Your task to perform on an android device: View the shopping cart on walmart. Search for "lenovo thinkpad" on walmart, select the first entry, add it to the cart, then select checkout. Image 0: 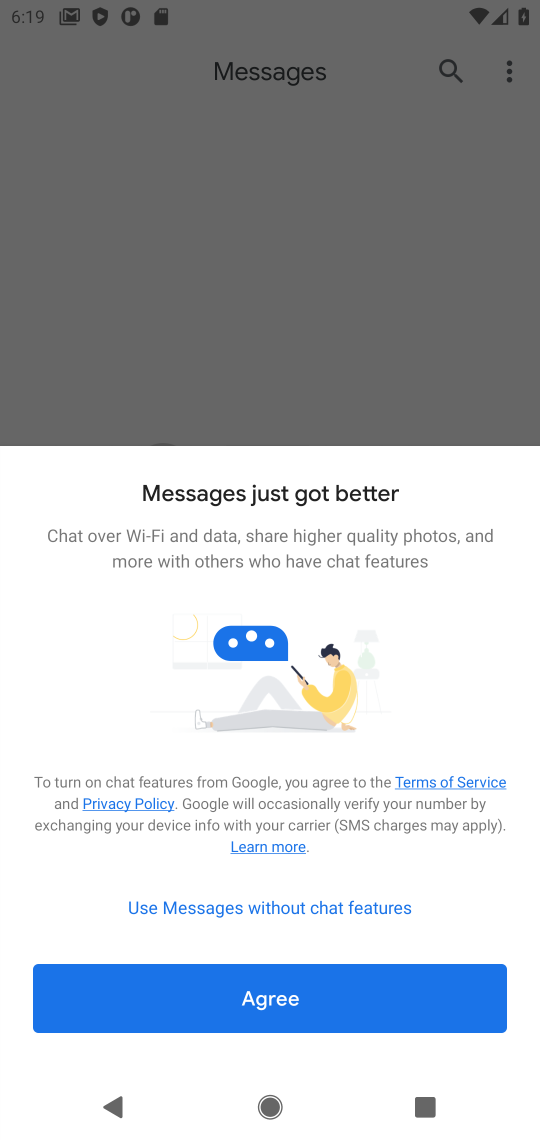
Step 0: press home button
Your task to perform on an android device: View the shopping cart on walmart. Search for "lenovo thinkpad" on walmart, select the first entry, add it to the cart, then select checkout. Image 1: 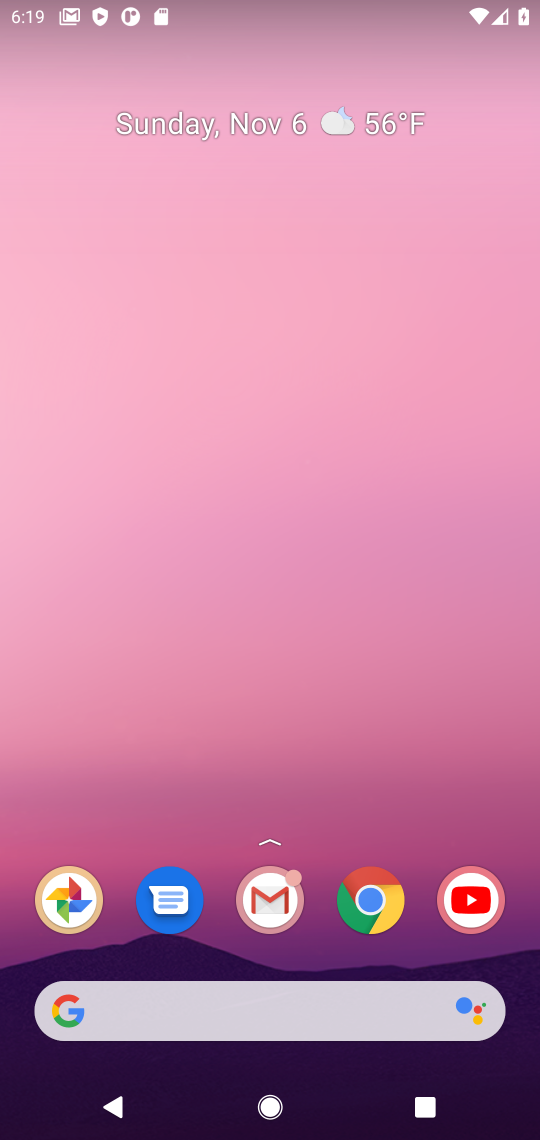
Step 1: drag from (318, 953) to (416, 206)
Your task to perform on an android device: View the shopping cart on walmart. Search for "lenovo thinkpad" on walmart, select the first entry, add it to the cart, then select checkout. Image 2: 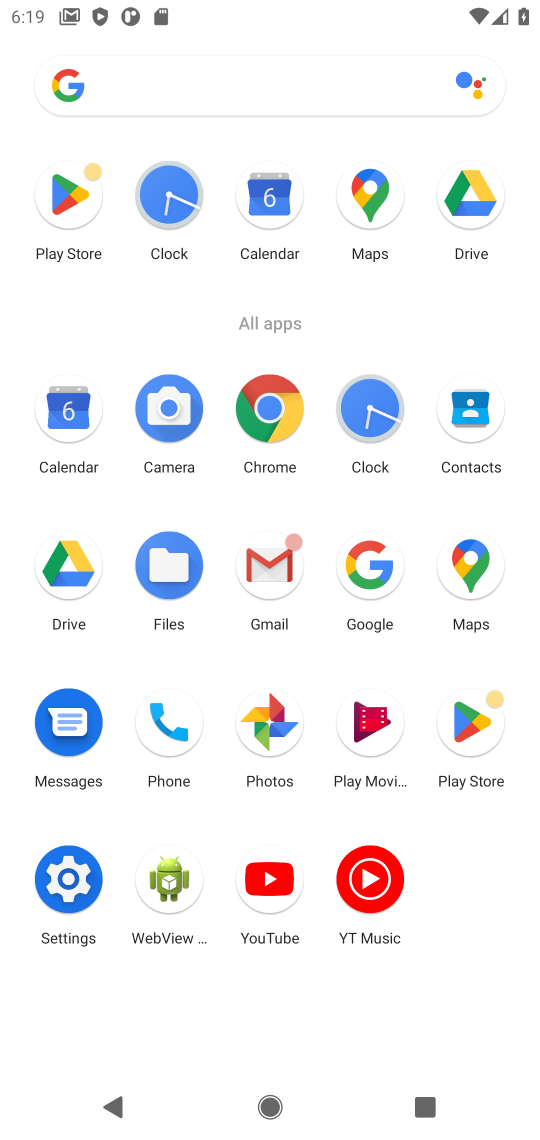
Step 2: click (263, 414)
Your task to perform on an android device: View the shopping cart on walmart. Search for "lenovo thinkpad" on walmart, select the first entry, add it to the cart, then select checkout. Image 3: 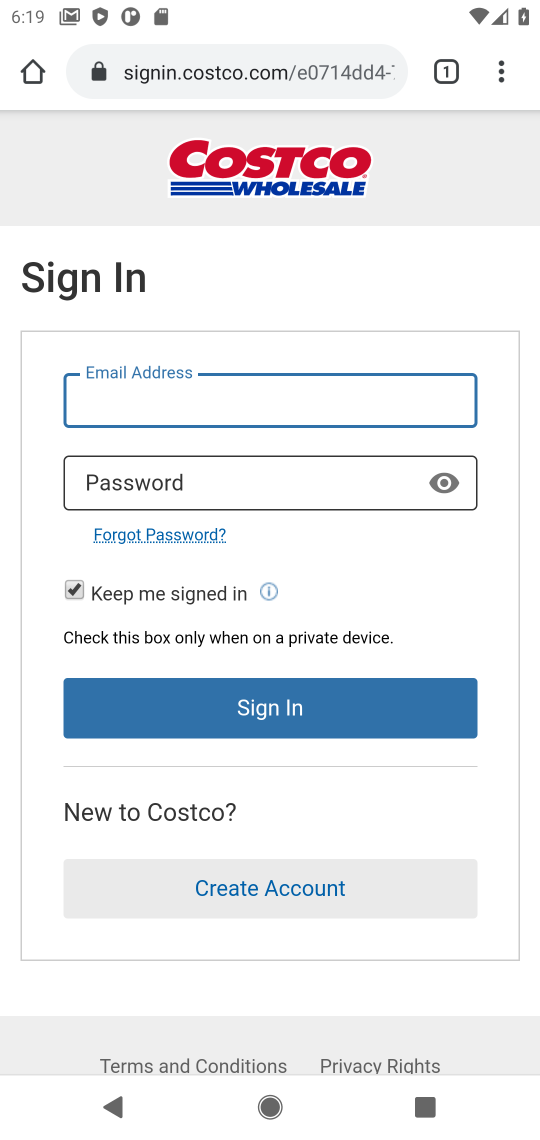
Step 3: click (286, 68)
Your task to perform on an android device: View the shopping cart on walmart. Search for "lenovo thinkpad" on walmart, select the first entry, add it to the cart, then select checkout. Image 4: 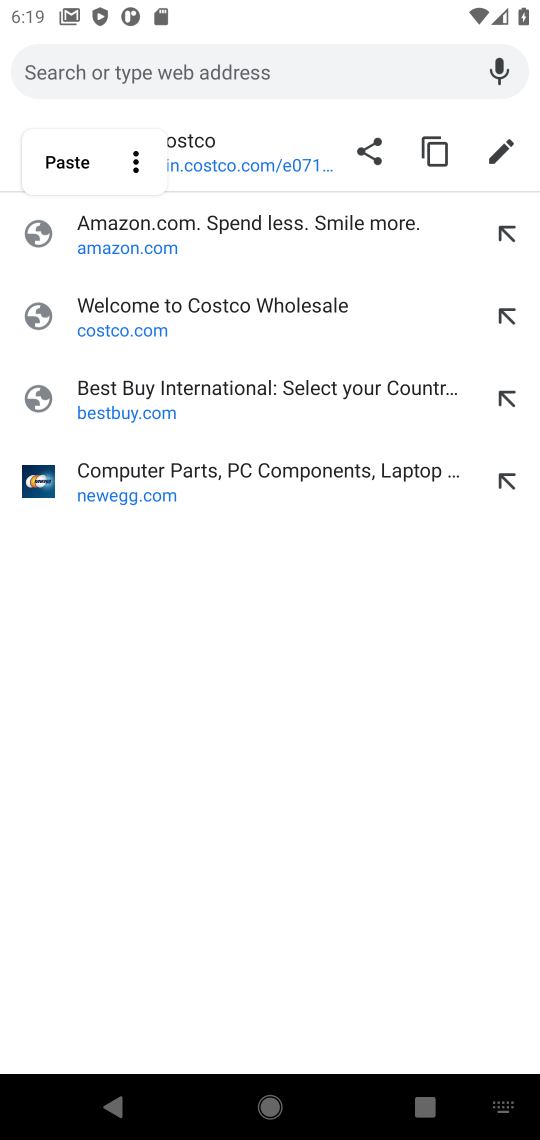
Step 4: type "walmart.com"
Your task to perform on an android device: View the shopping cart on walmart. Search for "lenovo thinkpad" on walmart, select the first entry, add it to the cart, then select checkout. Image 5: 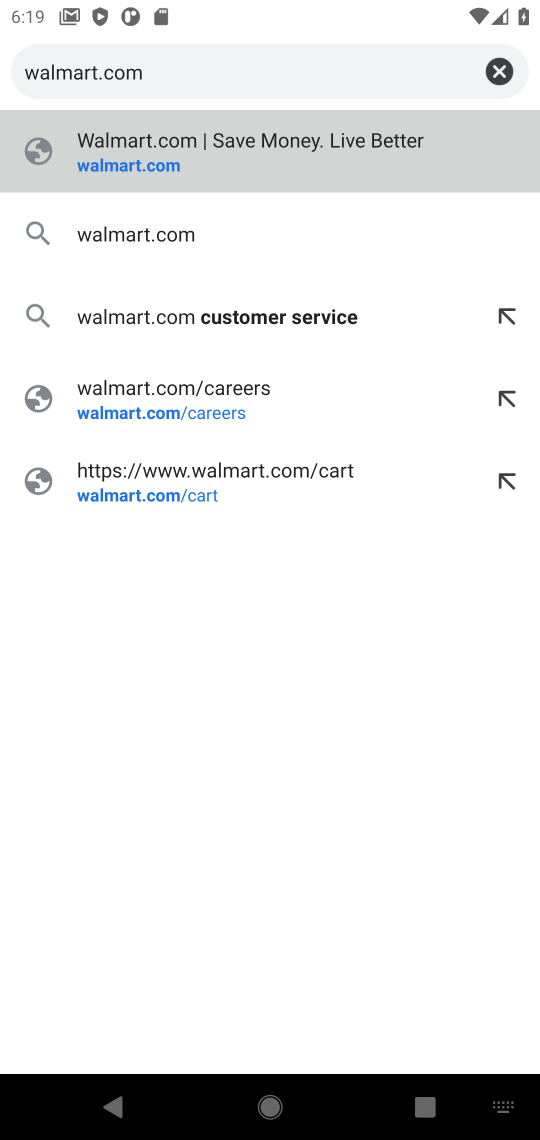
Step 5: press enter
Your task to perform on an android device: View the shopping cart on walmart. Search for "lenovo thinkpad" on walmart, select the first entry, add it to the cart, then select checkout. Image 6: 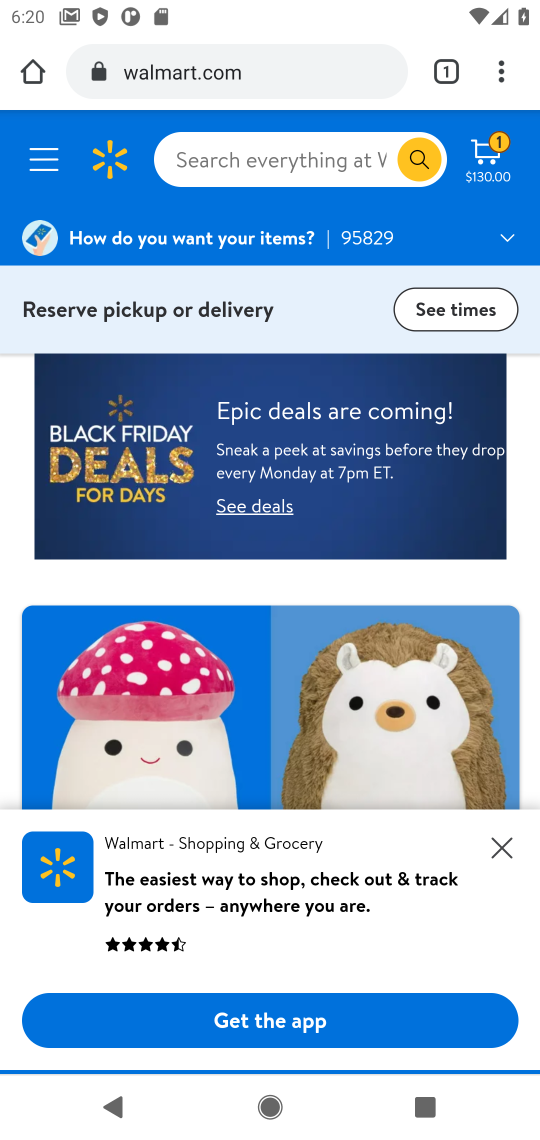
Step 6: click (232, 146)
Your task to perform on an android device: View the shopping cart on walmart. Search for "lenovo thinkpad" on walmart, select the first entry, add it to the cart, then select checkout. Image 7: 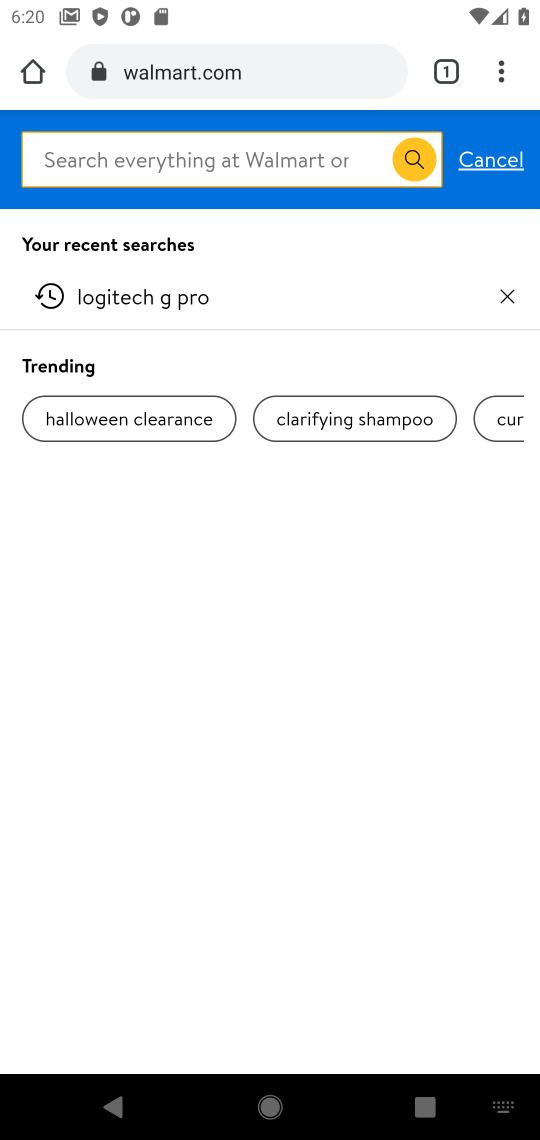
Step 7: type "lenovo  thinkpad"
Your task to perform on an android device: View the shopping cart on walmart. Search for "lenovo thinkpad" on walmart, select the first entry, add it to the cart, then select checkout. Image 8: 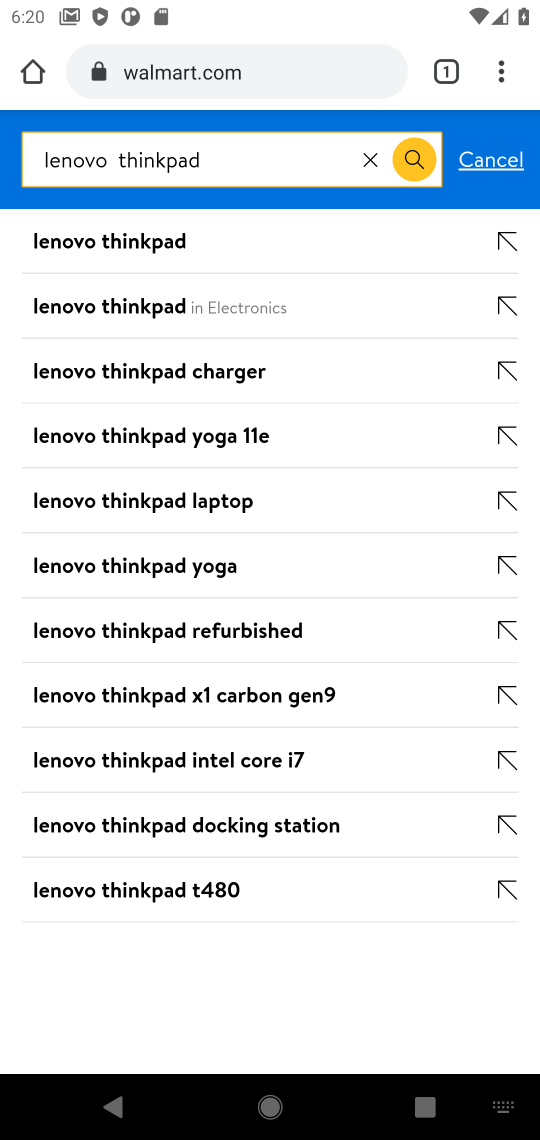
Step 8: press enter
Your task to perform on an android device: View the shopping cart on walmart. Search for "lenovo thinkpad" on walmart, select the first entry, add it to the cart, then select checkout. Image 9: 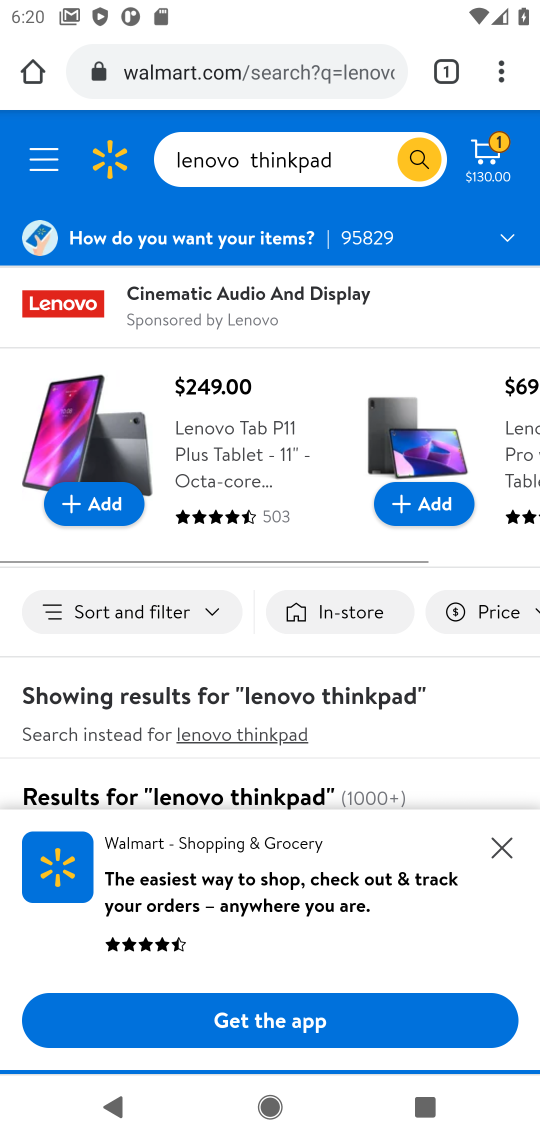
Step 9: drag from (402, 552) to (394, 121)
Your task to perform on an android device: View the shopping cart on walmart. Search for "lenovo thinkpad" on walmart, select the first entry, add it to the cart, then select checkout. Image 10: 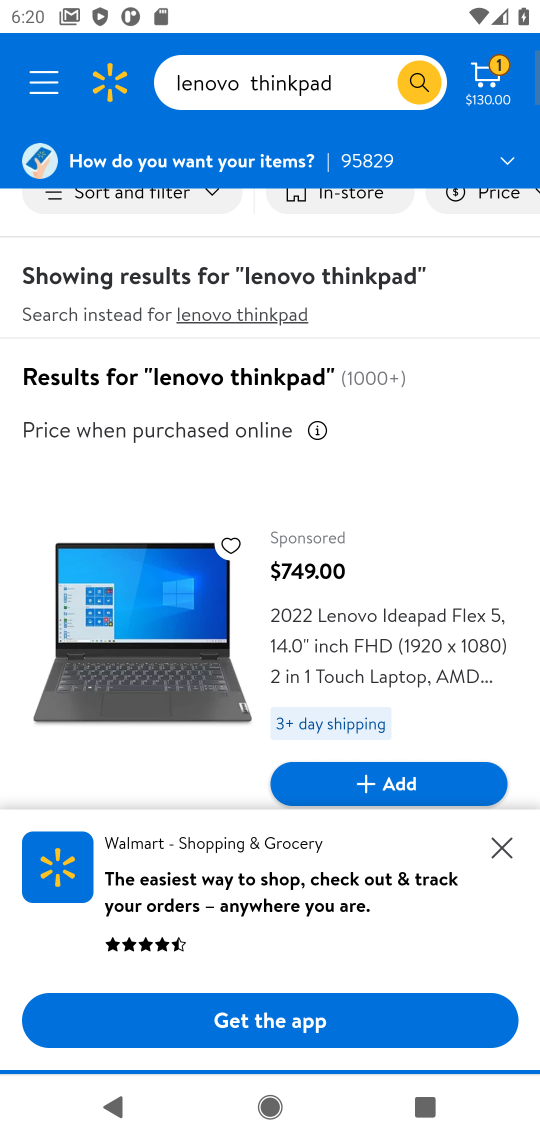
Step 10: drag from (272, 670) to (374, 271)
Your task to perform on an android device: View the shopping cart on walmart. Search for "lenovo thinkpad" on walmart, select the first entry, add it to the cart, then select checkout. Image 11: 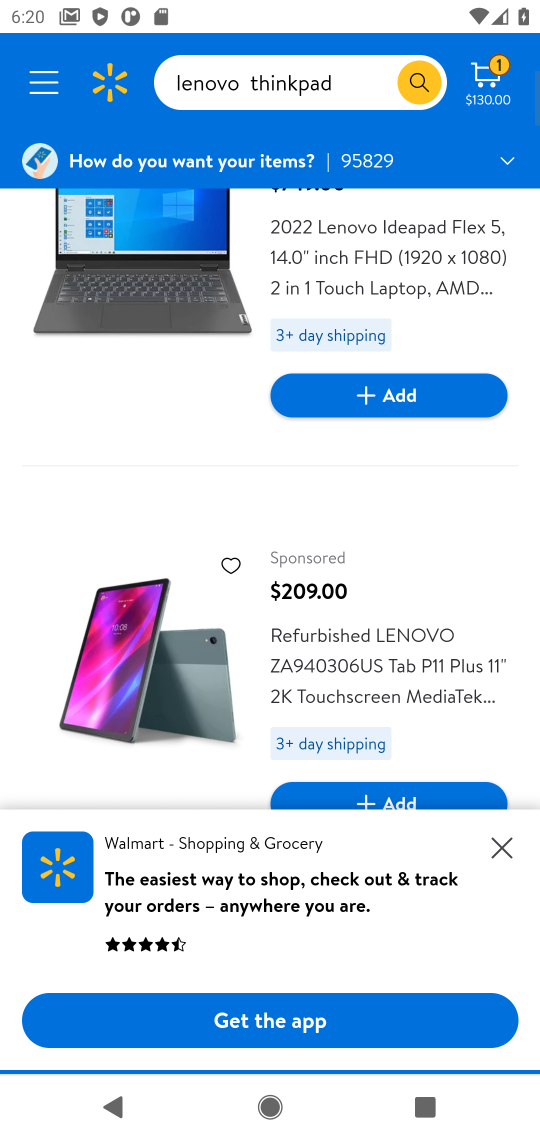
Step 11: drag from (203, 734) to (247, 196)
Your task to perform on an android device: View the shopping cart on walmart. Search for "lenovo thinkpad" on walmart, select the first entry, add it to the cart, then select checkout. Image 12: 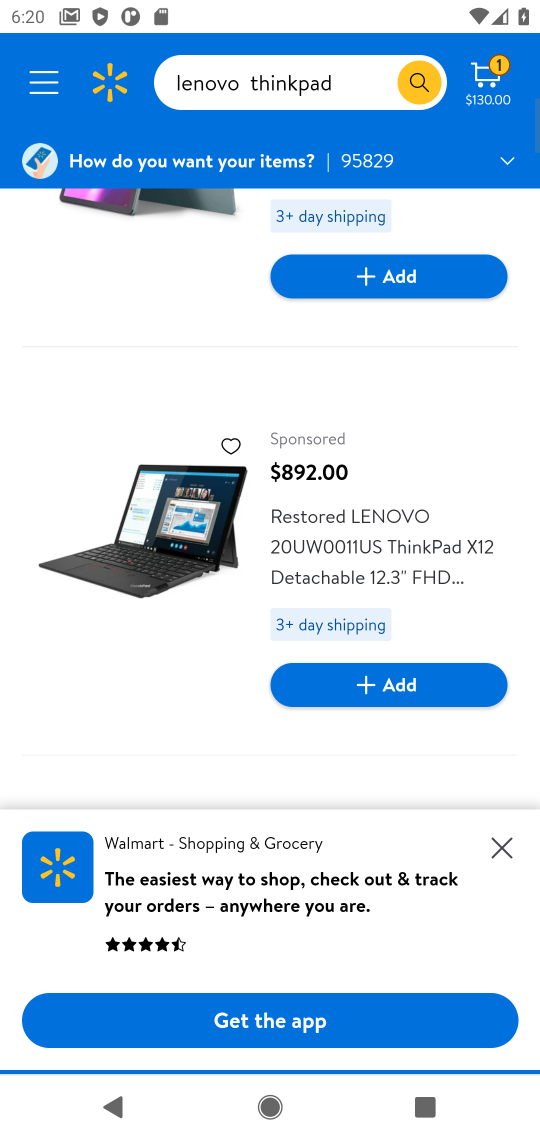
Step 12: drag from (112, 669) to (119, 228)
Your task to perform on an android device: View the shopping cart on walmart. Search for "lenovo thinkpad" on walmart, select the first entry, add it to the cart, then select checkout. Image 13: 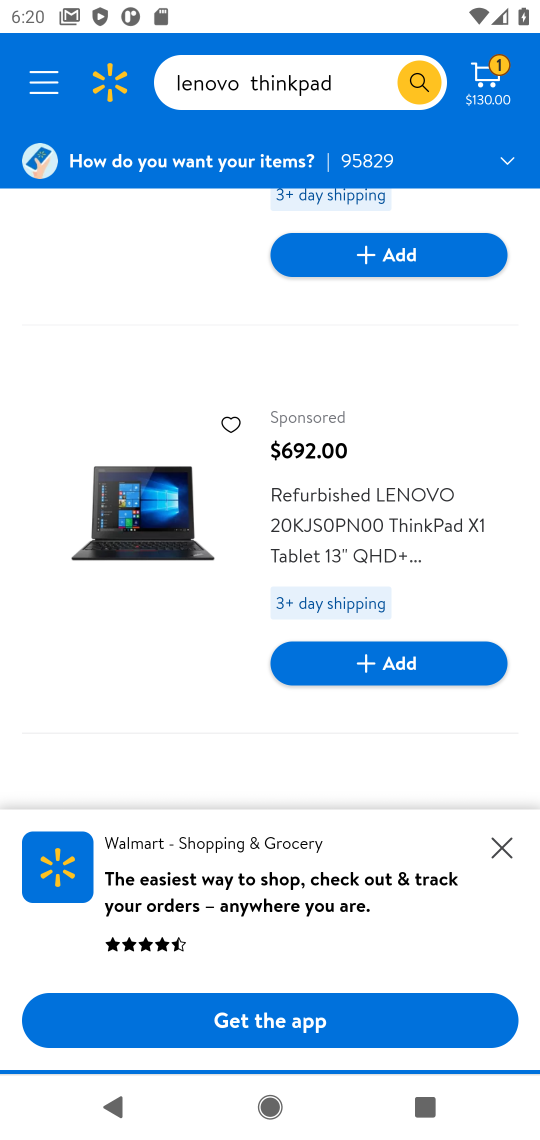
Step 13: drag from (301, 704) to (379, 386)
Your task to perform on an android device: View the shopping cart on walmart. Search for "lenovo thinkpad" on walmart, select the first entry, add it to the cart, then select checkout. Image 14: 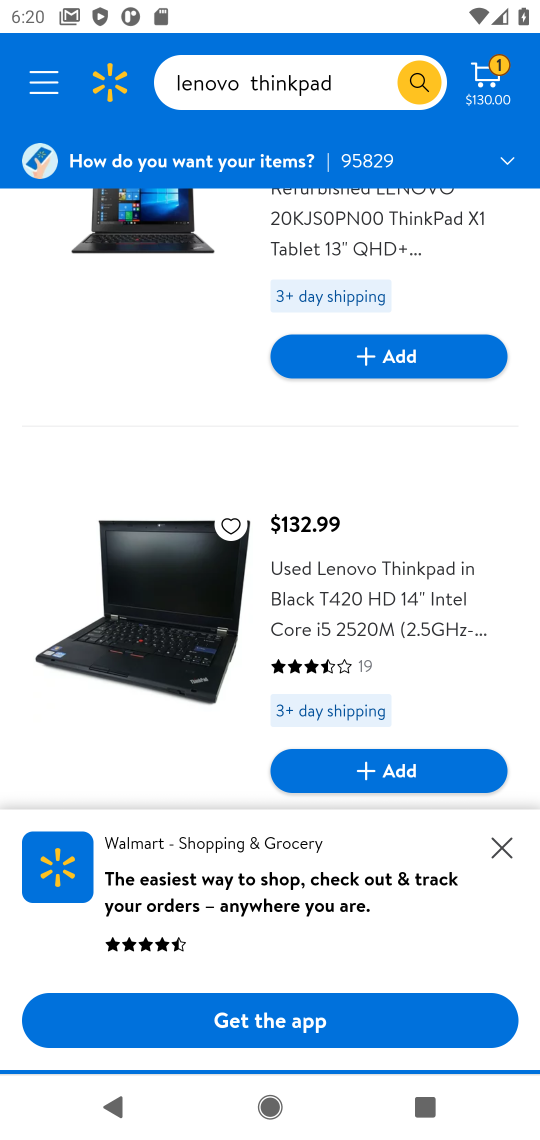
Step 14: drag from (355, 493) to (310, 330)
Your task to perform on an android device: View the shopping cart on walmart. Search for "lenovo thinkpad" on walmart, select the first entry, add it to the cart, then select checkout. Image 15: 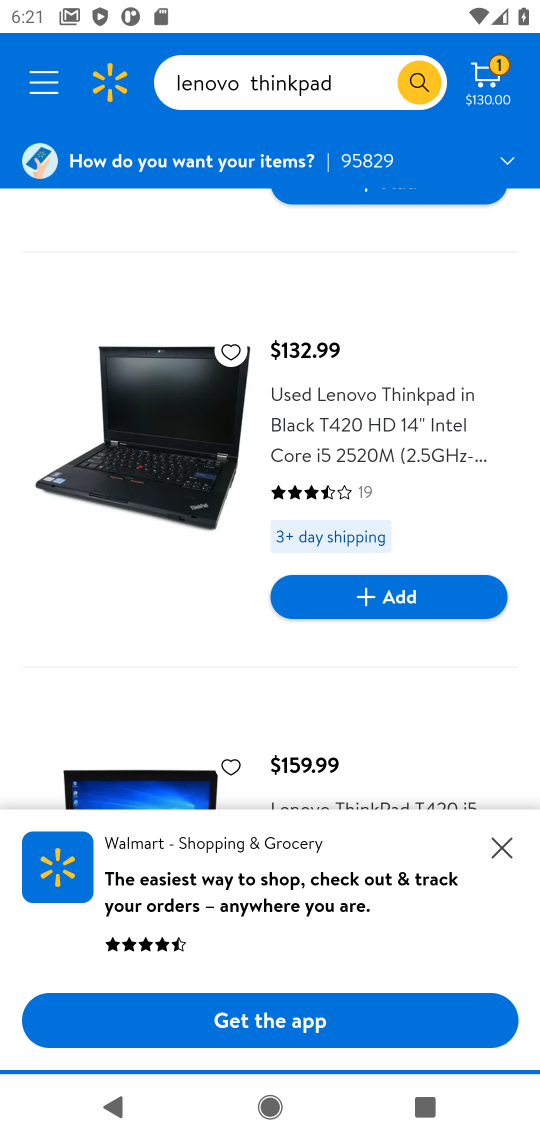
Step 15: click (388, 413)
Your task to perform on an android device: View the shopping cart on walmart. Search for "lenovo thinkpad" on walmart, select the first entry, add it to the cart, then select checkout. Image 16: 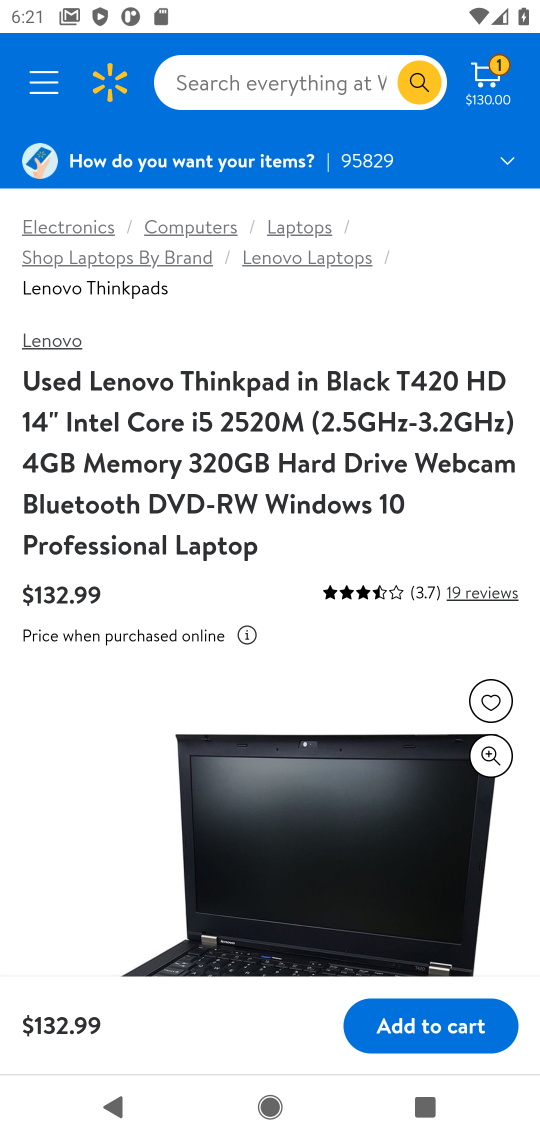
Step 16: click (426, 1030)
Your task to perform on an android device: View the shopping cart on walmart. Search for "lenovo thinkpad" on walmart, select the first entry, add it to the cart, then select checkout. Image 17: 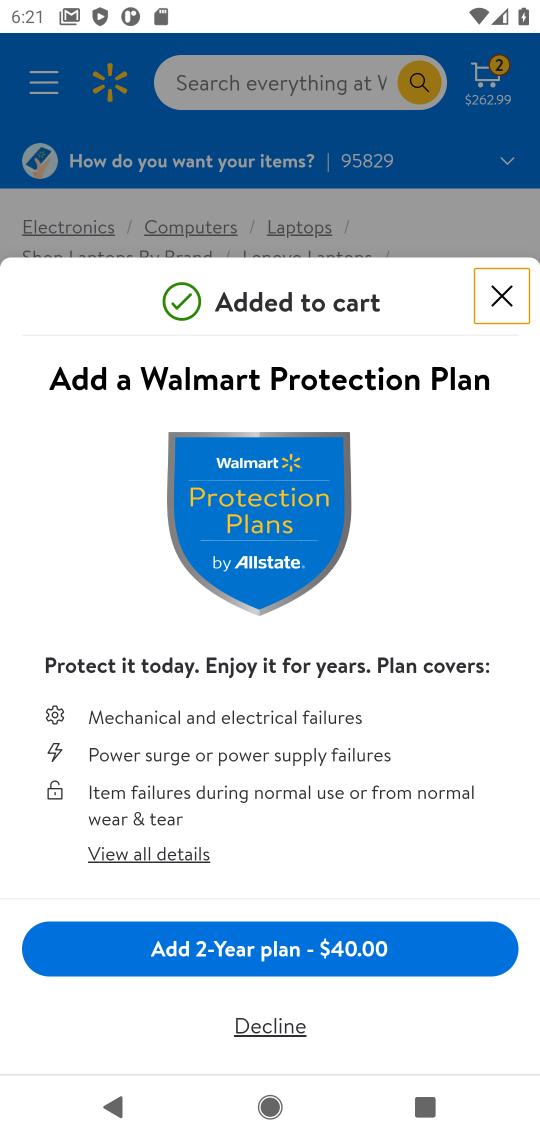
Step 17: click (525, 299)
Your task to perform on an android device: View the shopping cart on walmart. Search for "lenovo thinkpad" on walmart, select the first entry, add it to the cart, then select checkout. Image 18: 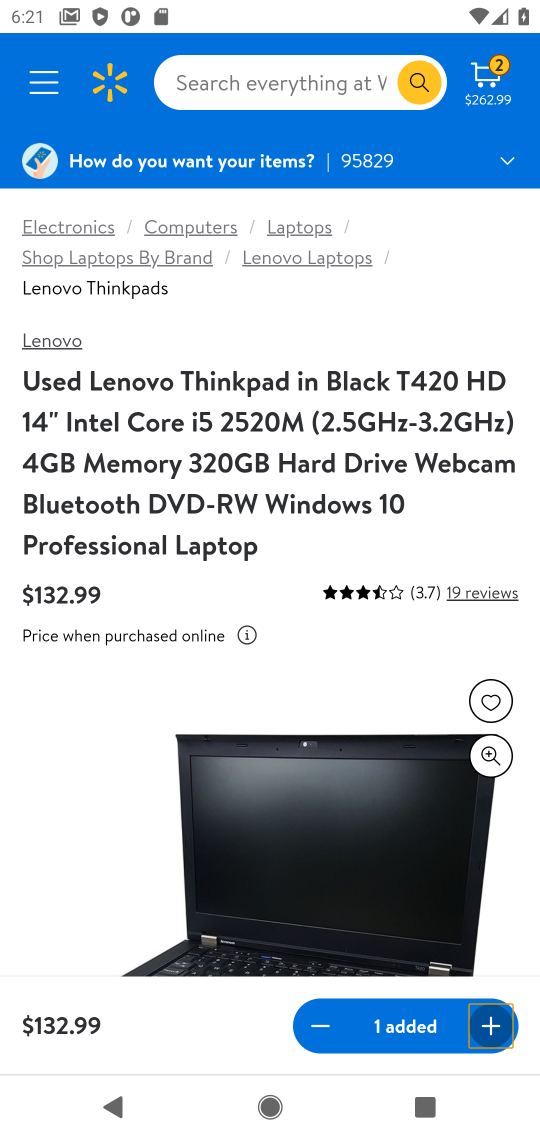
Step 18: click (480, 64)
Your task to perform on an android device: View the shopping cart on walmart. Search for "lenovo thinkpad" on walmart, select the first entry, add it to the cart, then select checkout. Image 19: 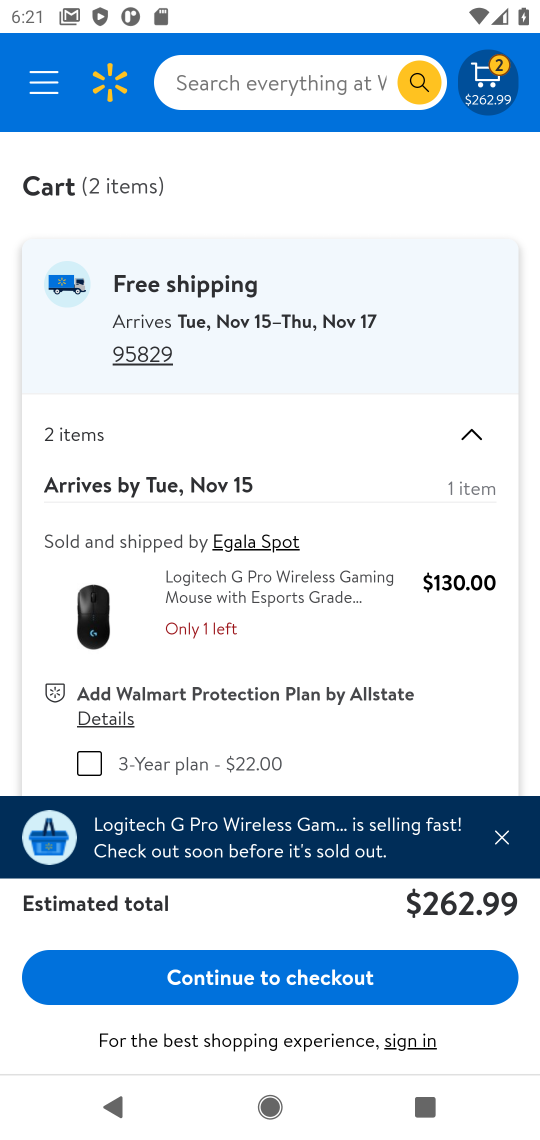
Step 19: click (323, 967)
Your task to perform on an android device: View the shopping cart on walmart. Search for "lenovo thinkpad" on walmart, select the first entry, add it to the cart, then select checkout. Image 20: 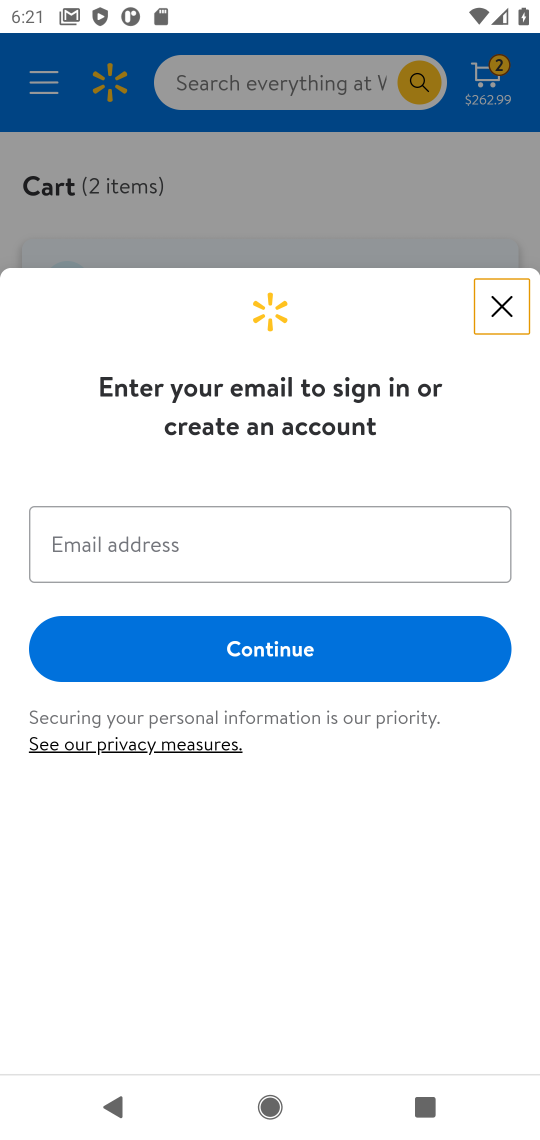
Step 20: task complete